Your task to perform on an android device: turn off data saver in the chrome app Image 0: 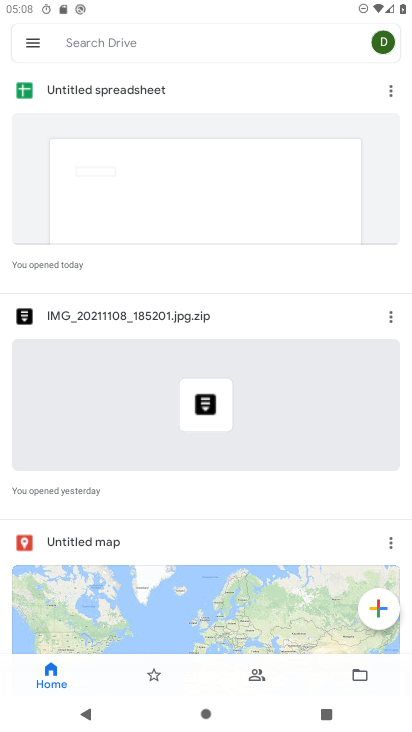
Step 0: press home button
Your task to perform on an android device: turn off data saver in the chrome app Image 1: 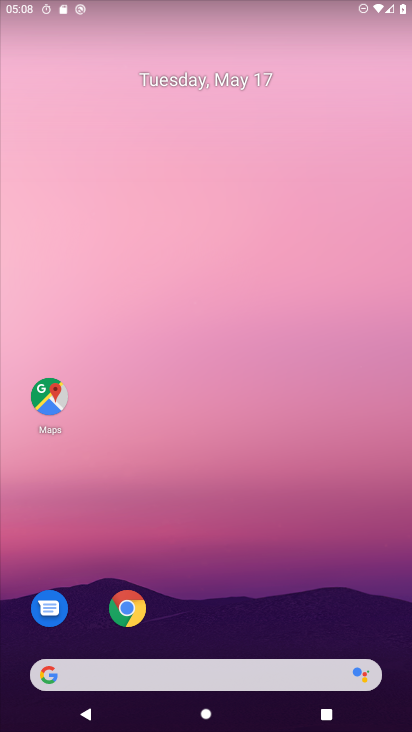
Step 1: click (123, 617)
Your task to perform on an android device: turn off data saver in the chrome app Image 2: 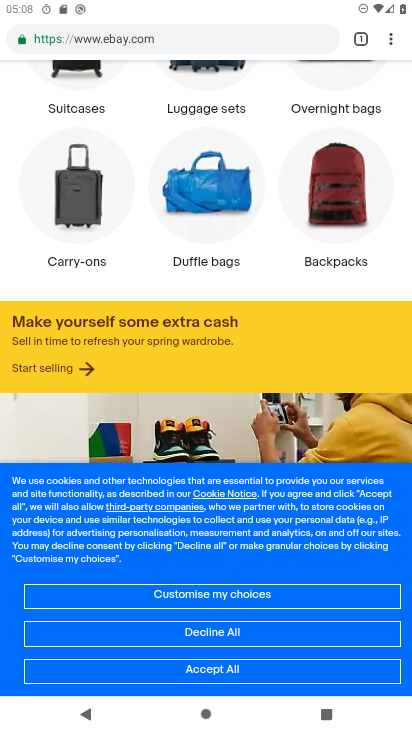
Step 2: click (388, 38)
Your task to perform on an android device: turn off data saver in the chrome app Image 3: 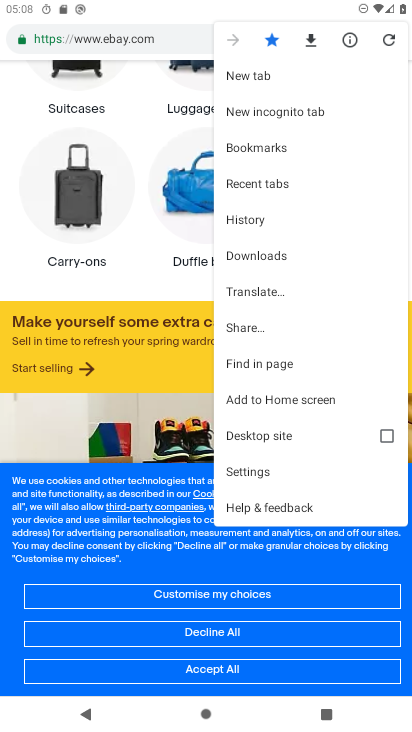
Step 3: click (247, 472)
Your task to perform on an android device: turn off data saver in the chrome app Image 4: 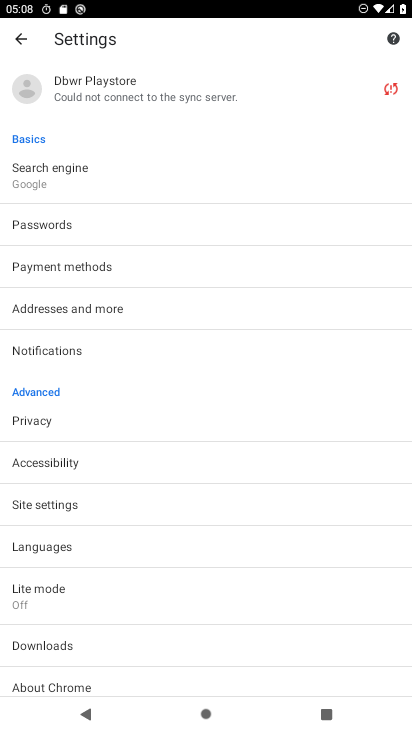
Step 4: click (29, 595)
Your task to perform on an android device: turn off data saver in the chrome app Image 5: 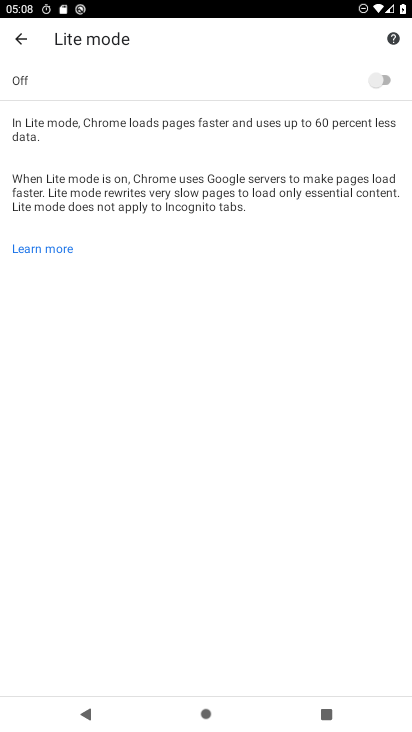
Step 5: task complete